Your task to perform on an android device: Open the map Image 0: 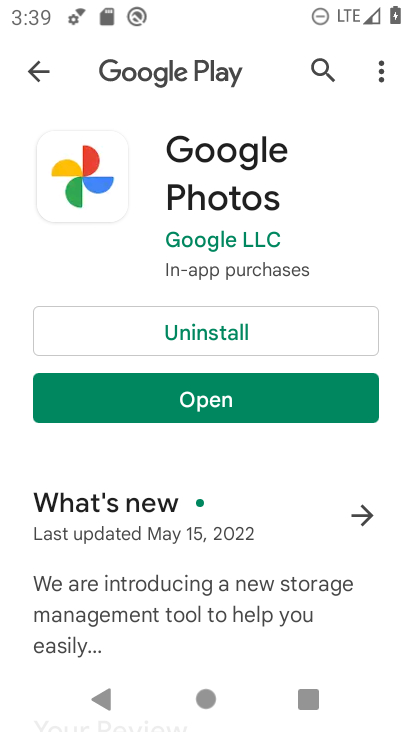
Step 0: press home button
Your task to perform on an android device: Open the map Image 1: 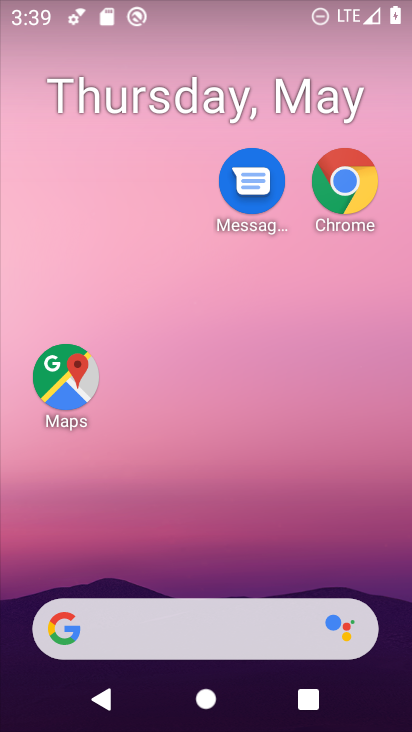
Step 1: drag from (221, 528) to (172, 121)
Your task to perform on an android device: Open the map Image 2: 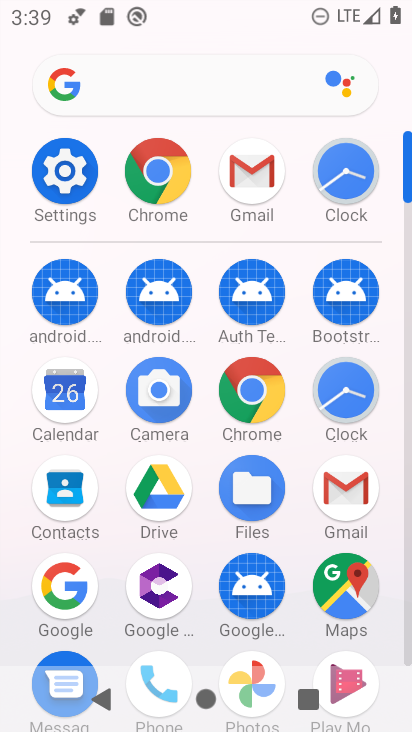
Step 2: click (347, 581)
Your task to perform on an android device: Open the map Image 3: 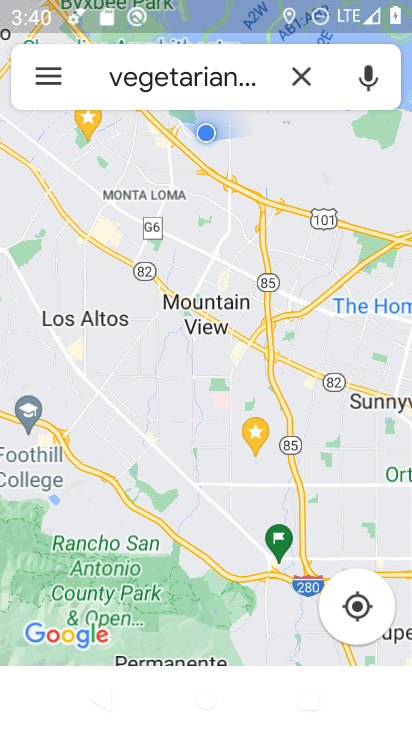
Step 3: click (302, 82)
Your task to perform on an android device: Open the map Image 4: 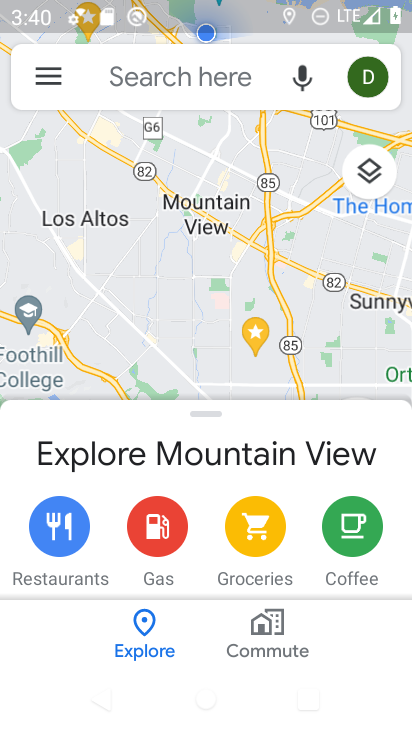
Step 4: task complete